Your task to perform on an android device: install app "Google Maps" Image 0: 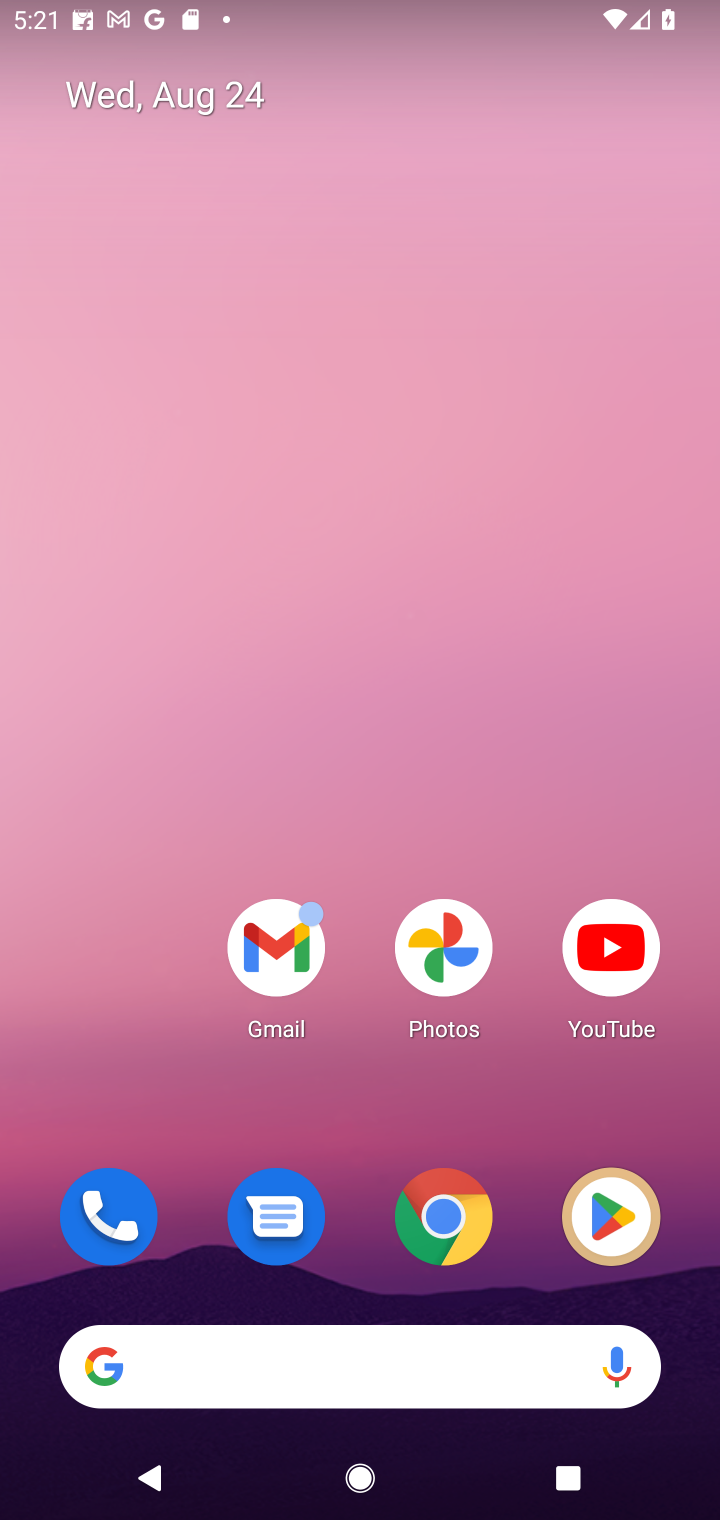
Step 0: click (610, 1226)
Your task to perform on an android device: install app "Google Maps" Image 1: 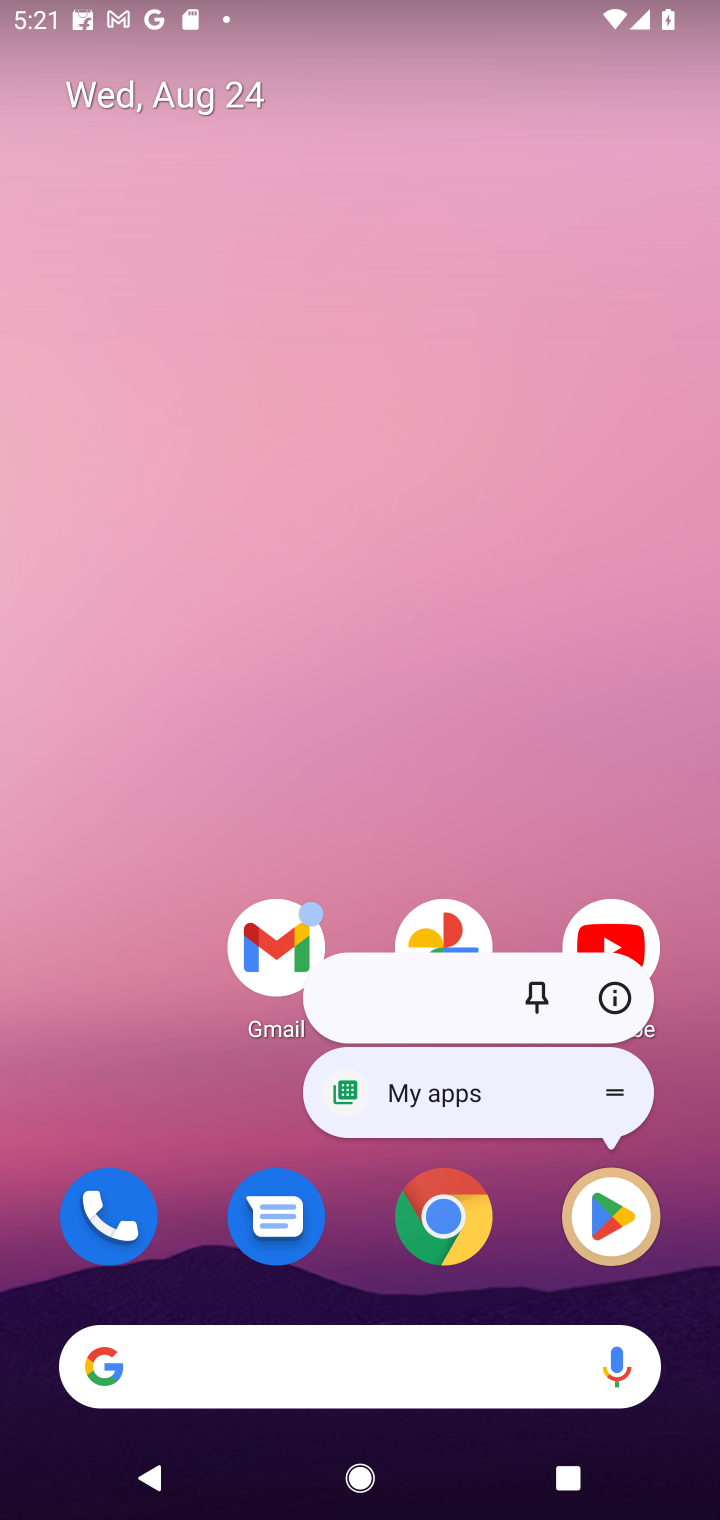
Step 1: click (610, 1226)
Your task to perform on an android device: install app "Google Maps" Image 2: 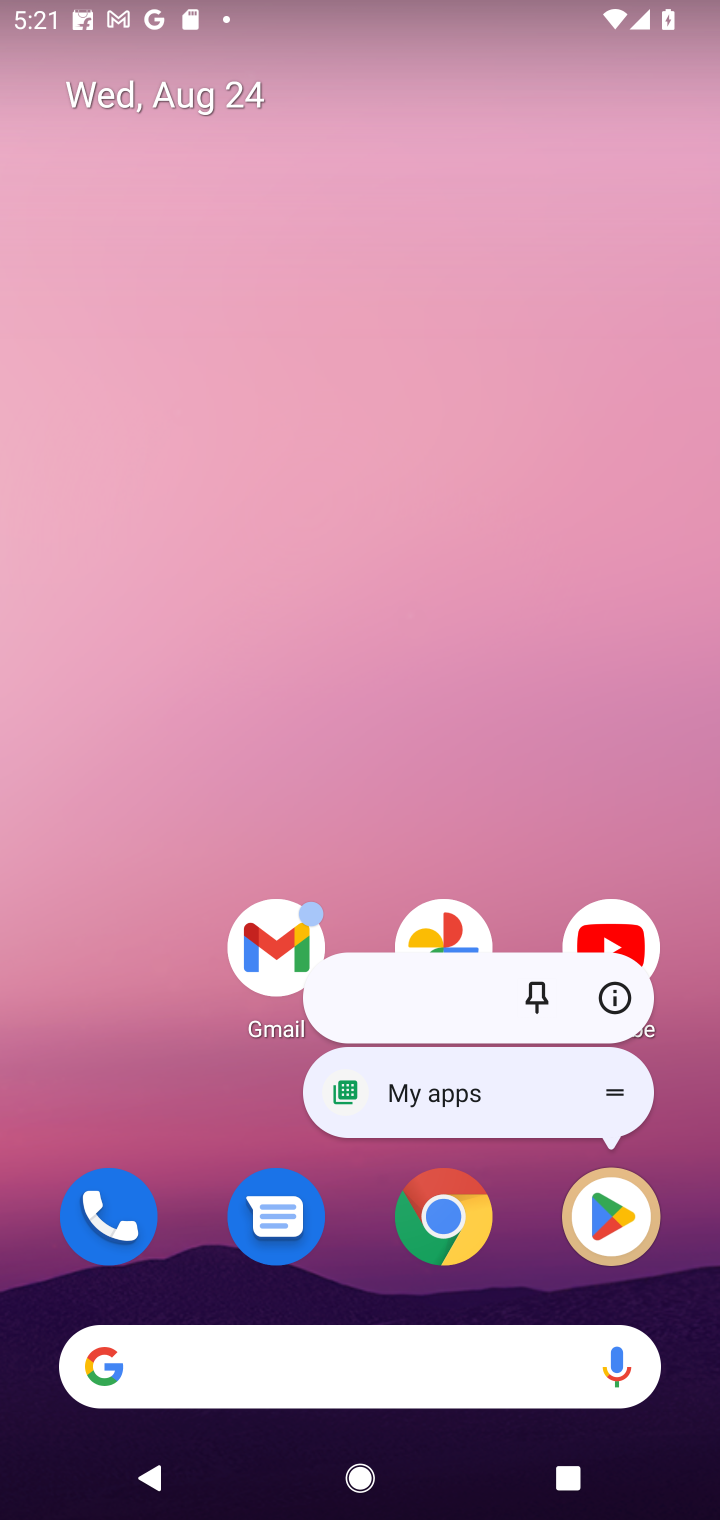
Step 2: click (612, 1196)
Your task to perform on an android device: install app "Google Maps" Image 3: 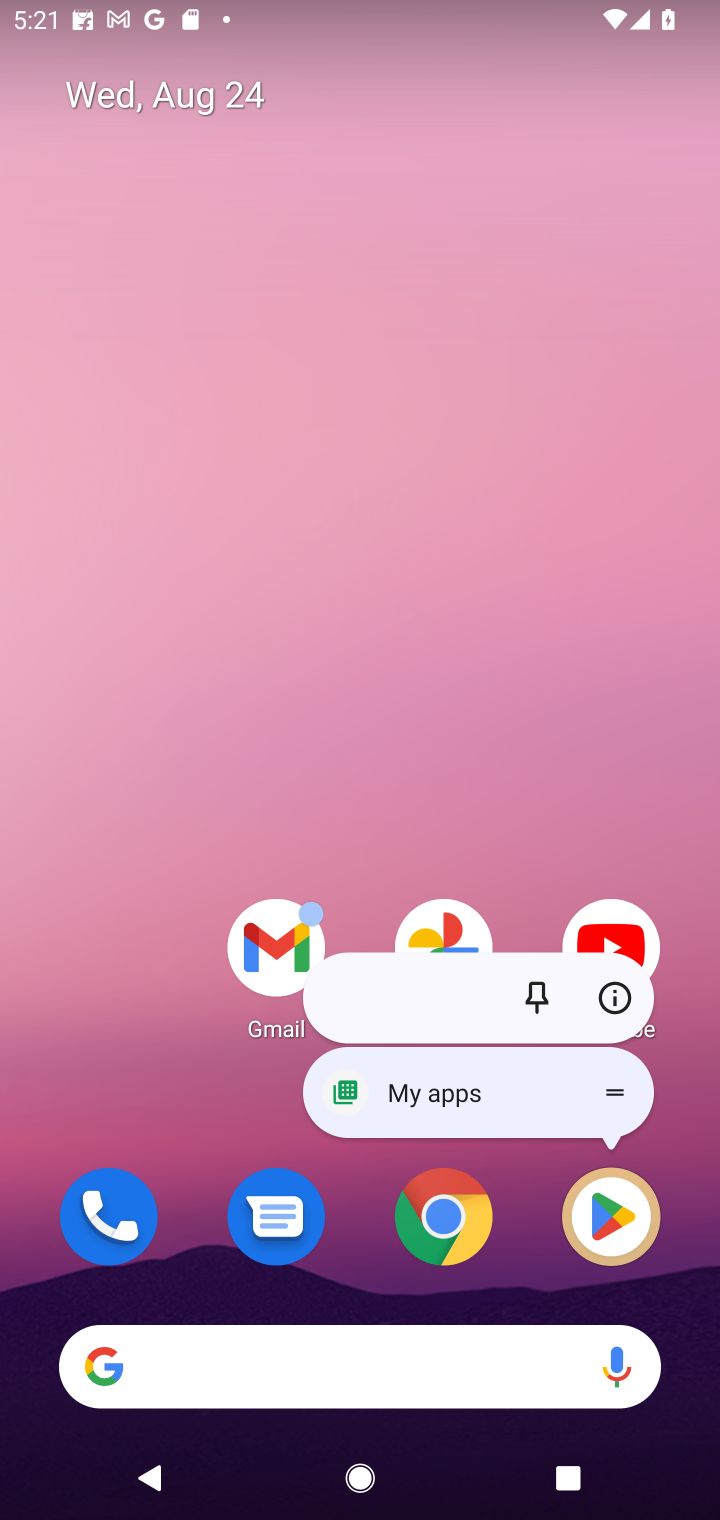
Step 3: click (612, 1196)
Your task to perform on an android device: install app "Google Maps" Image 4: 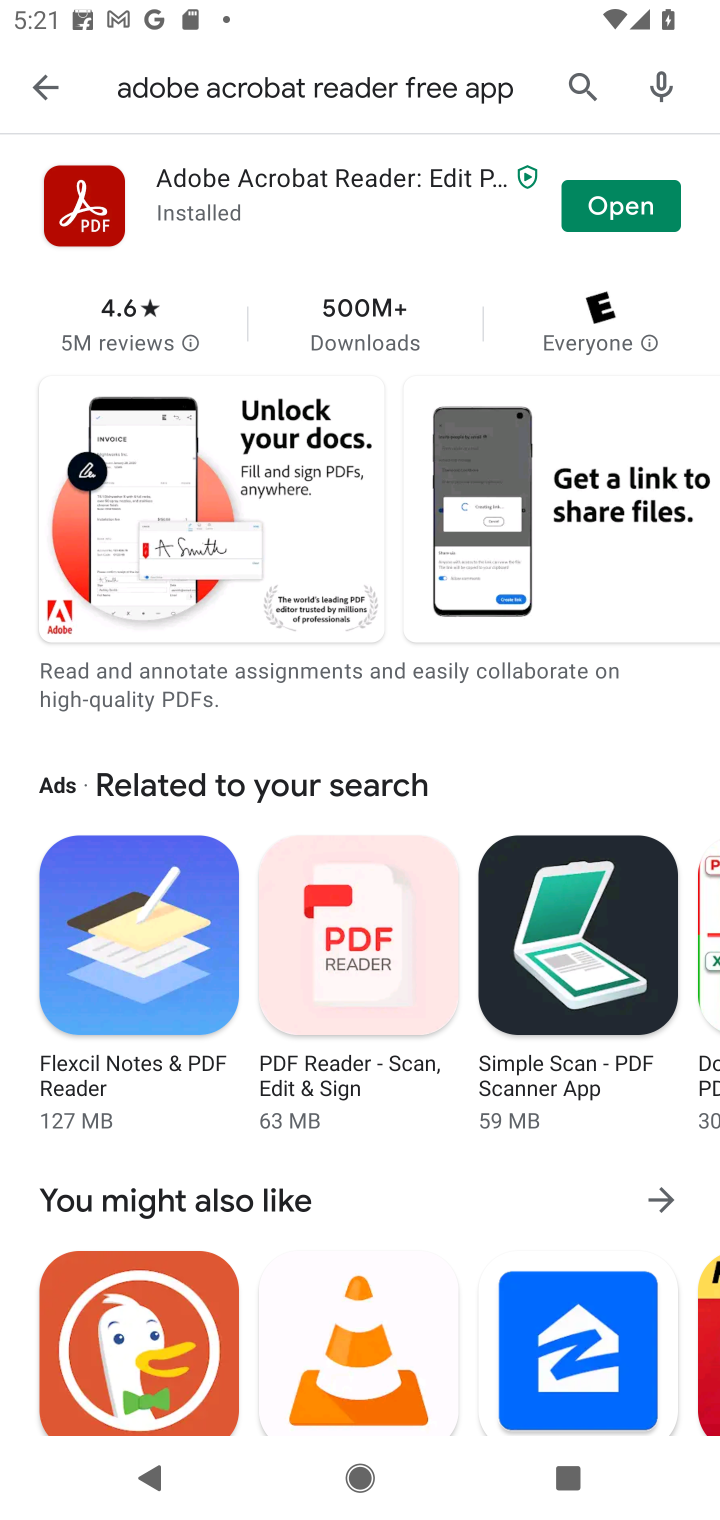
Step 4: click (620, 1214)
Your task to perform on an android device: install app "Google Maps" Image 5: 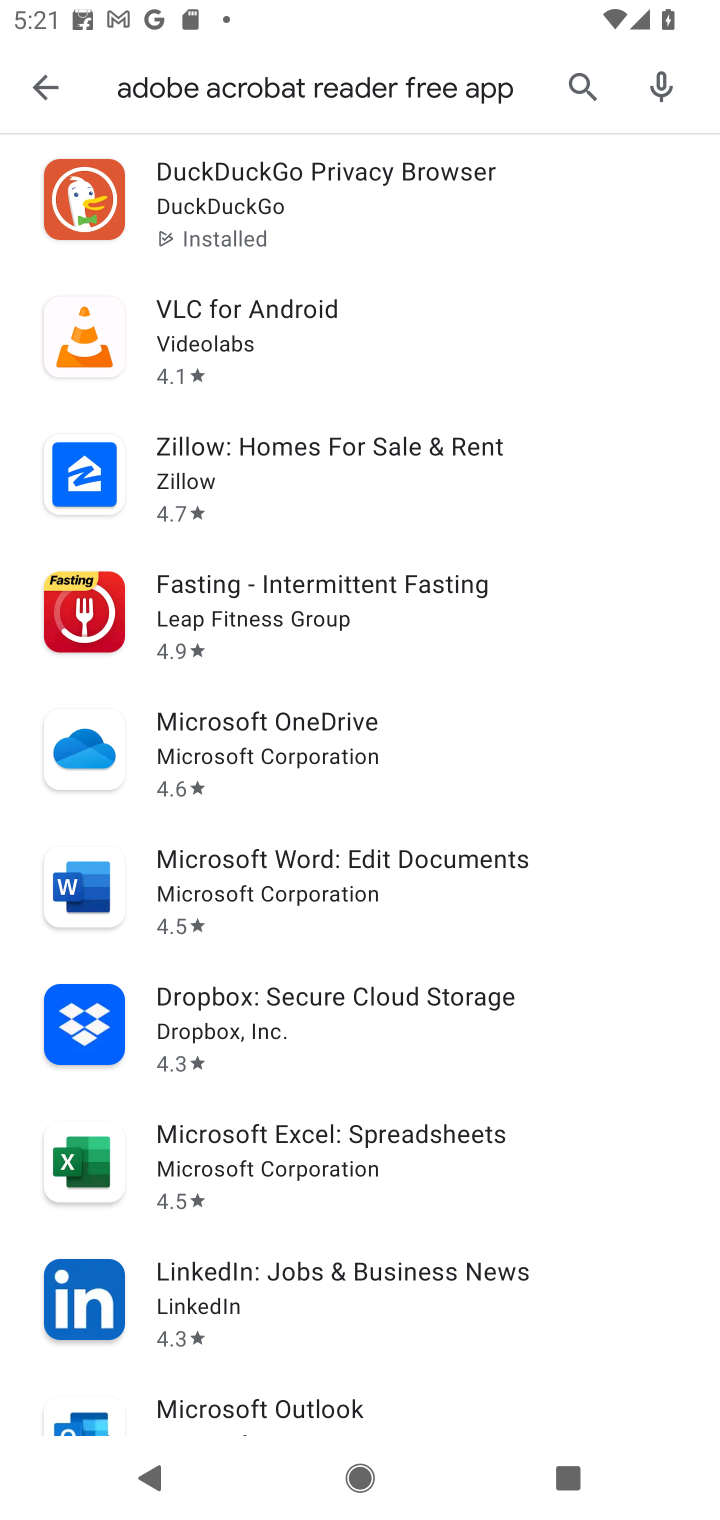
Step 5: click (564, 82)
Your task to perform on an android device: install app "Google Maps" Image 6: 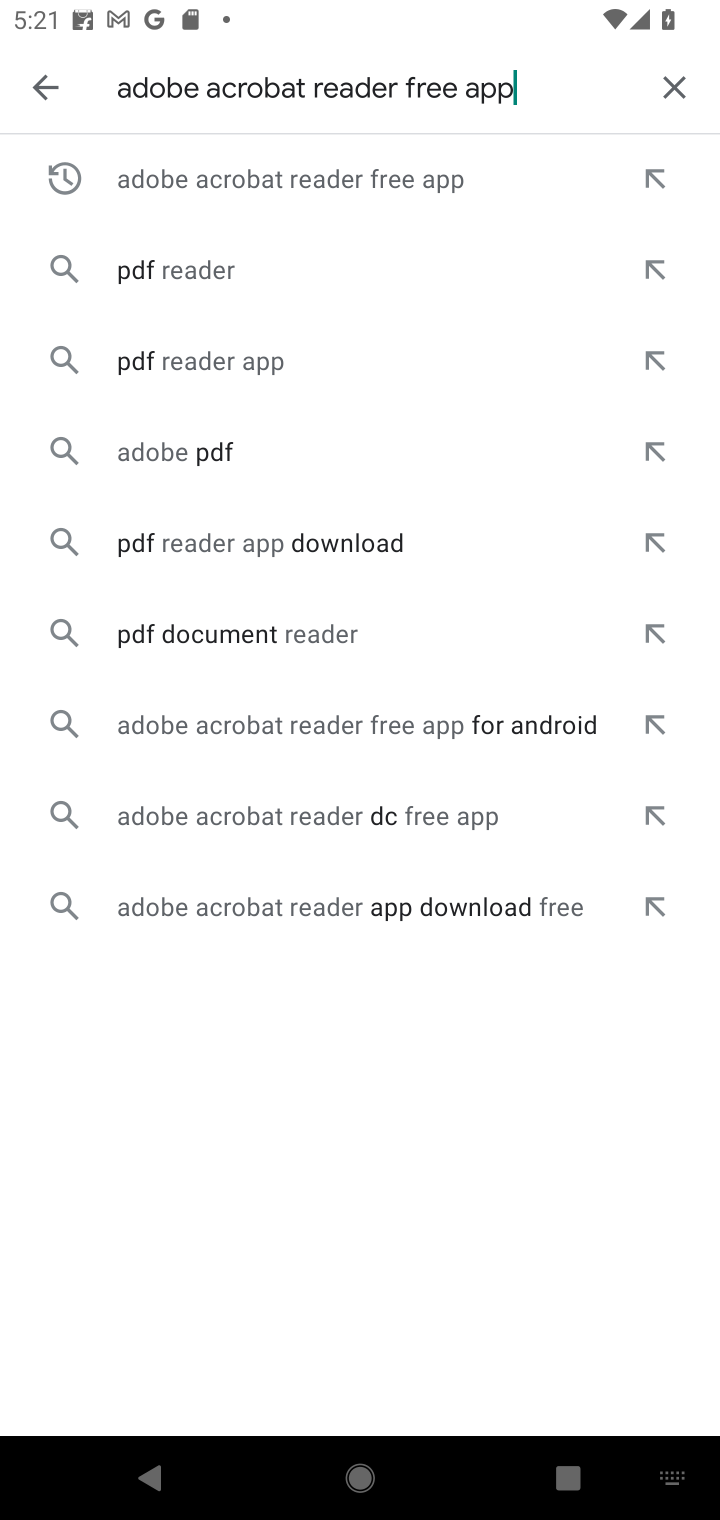
Step 6: click (659, 83)
Your task to perform on an android device: install app "Google Maps" Image 7: 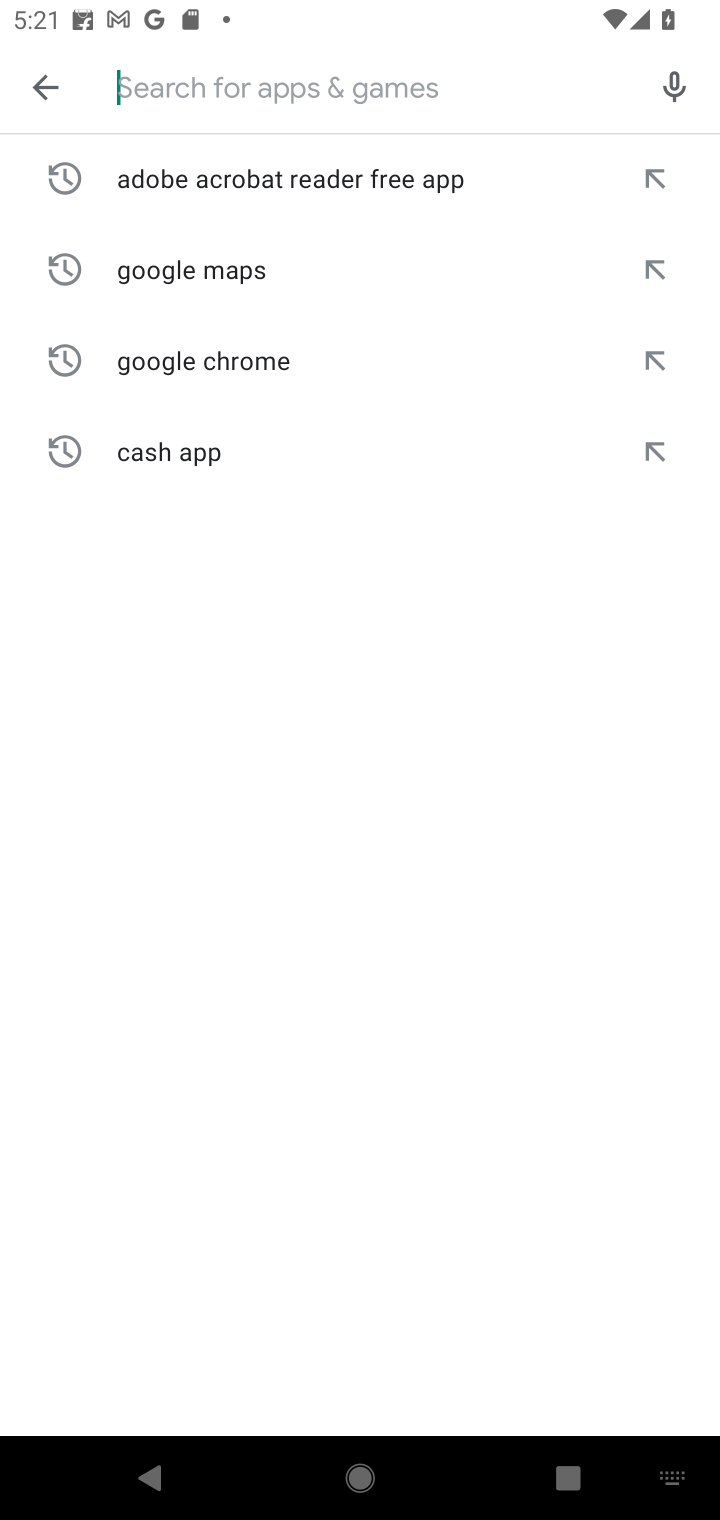
Step 7: type "Google Maps"
Your task to perform on an android device: install app "Google Maps" Image 8: 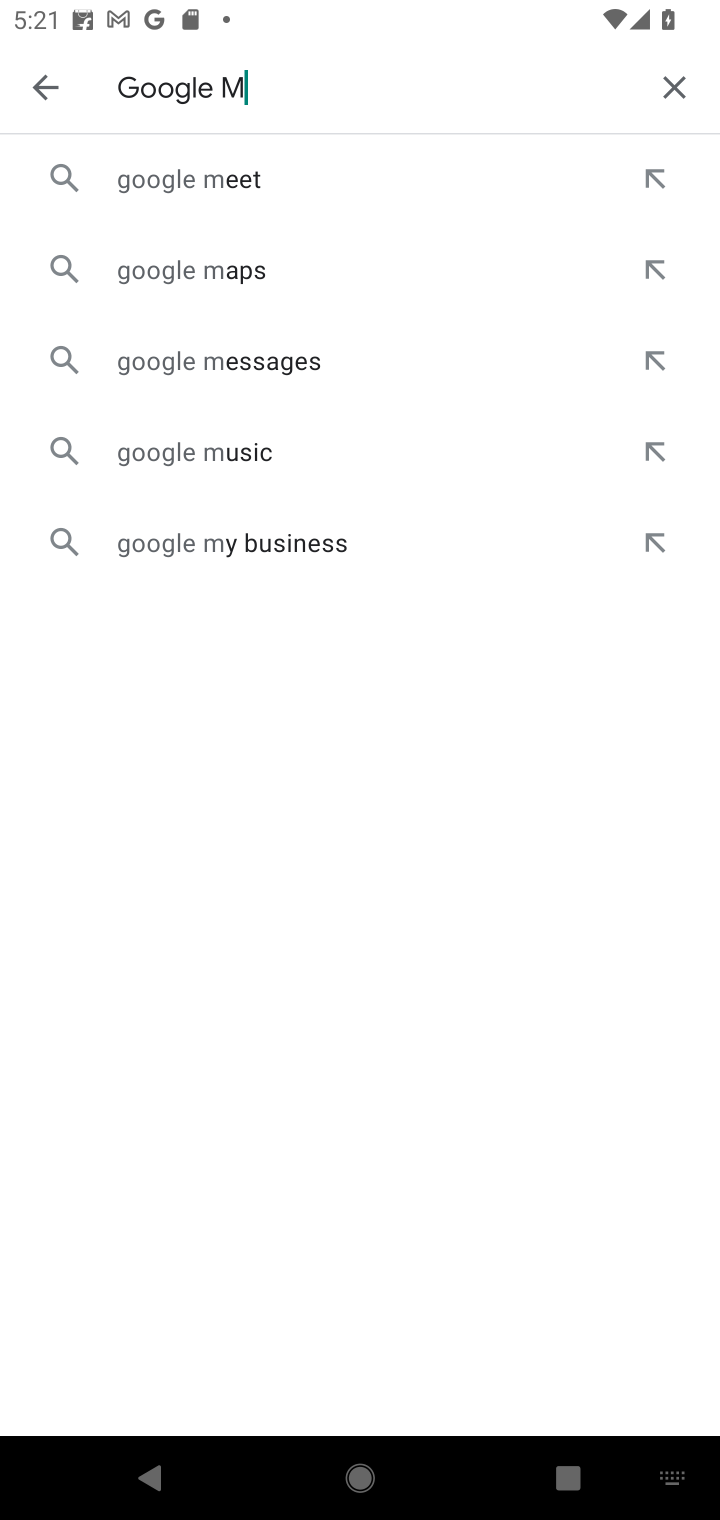
Step 8: type ""
Your task to perform on an android device: install app "Google Maps" Image 9: 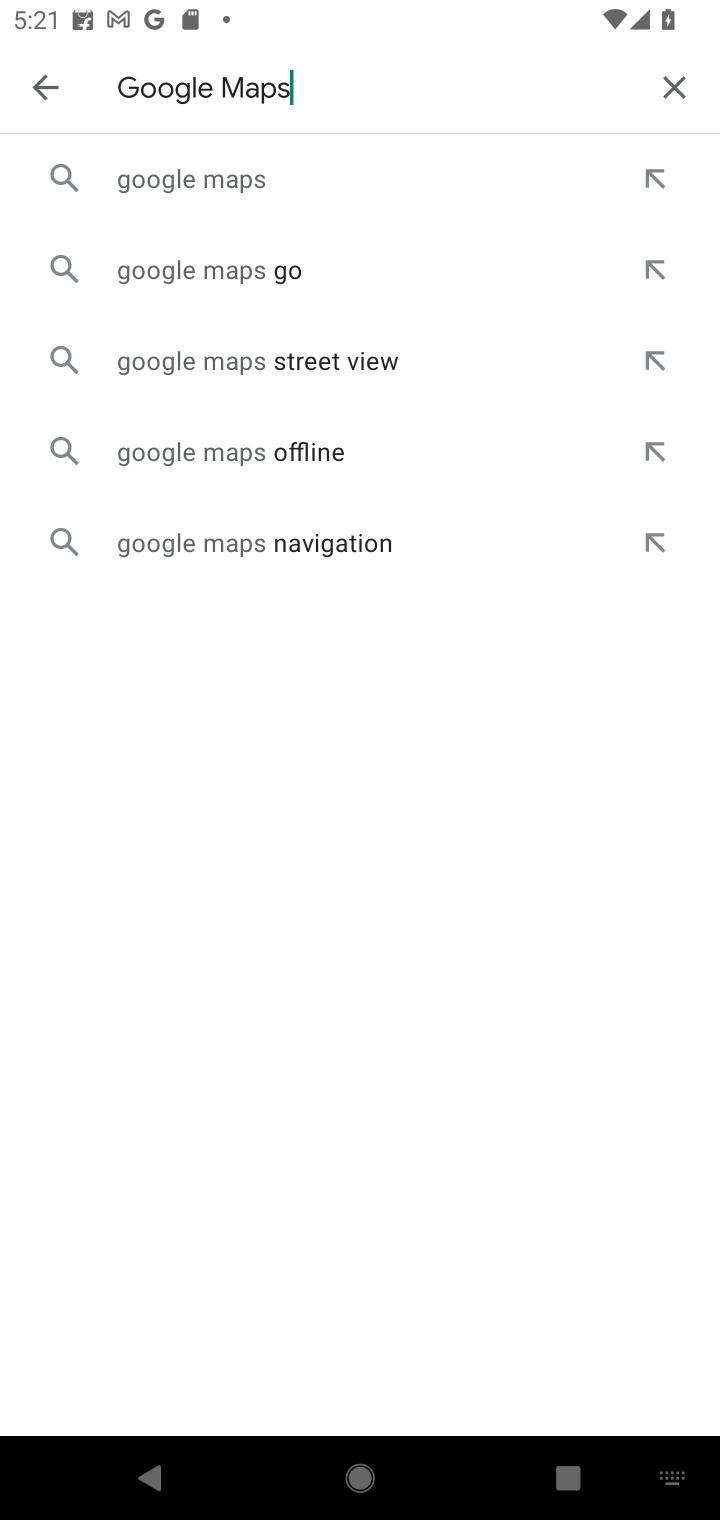
Step 9: click (256, 172)
Your task to perform on an android device: install app "Google Maps" Image 10: 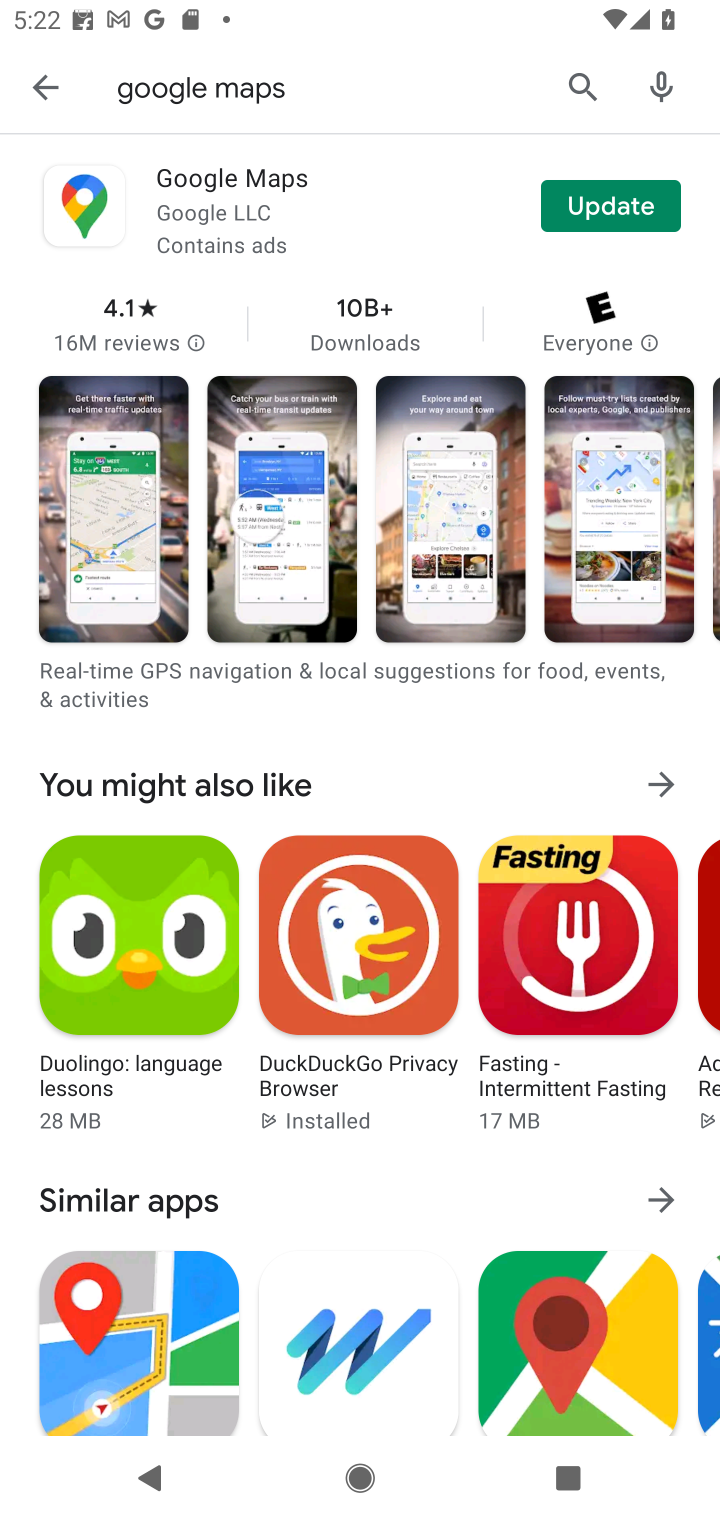
Step 10: click (451, 195)
Your task to perform on an android device: install app "Google Maps" Image 11: 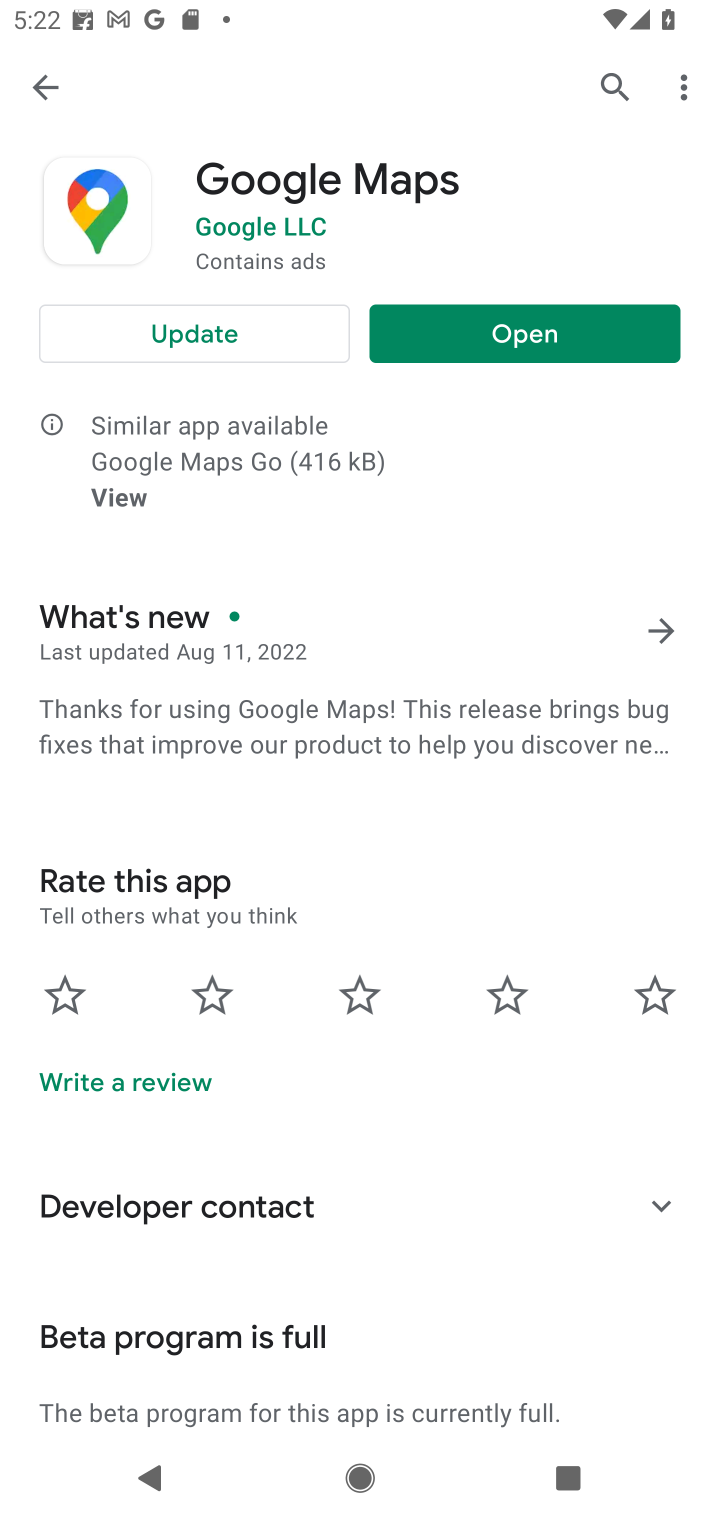
Step 11: task complete